Your task to perform on an android device: toggle notification dots Image 0: 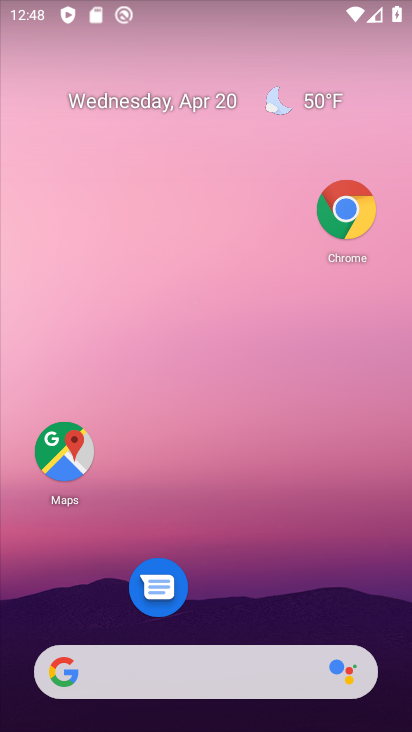
Step 0: drag from (235, 584) to (328, 0)
Your task to perform on an android device: toggle notification dots Image 1: 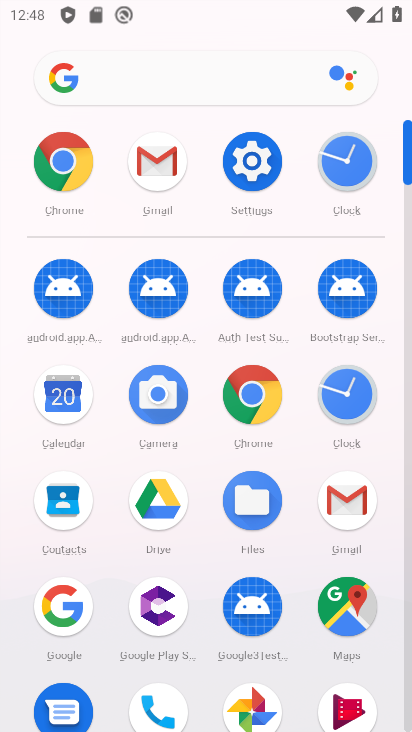
Step 1: click (258, 154)
Your task to perform on an android device: toggle notification dots Image 2: 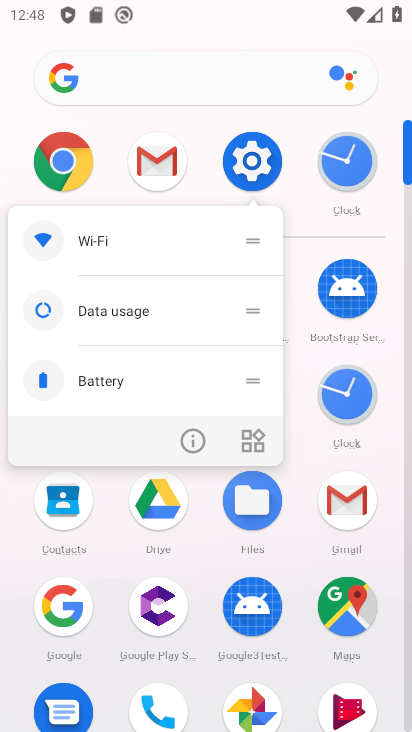
Step 2: click (255, 172)
Your task to perform on an android device: toggle notification dots Image 3: 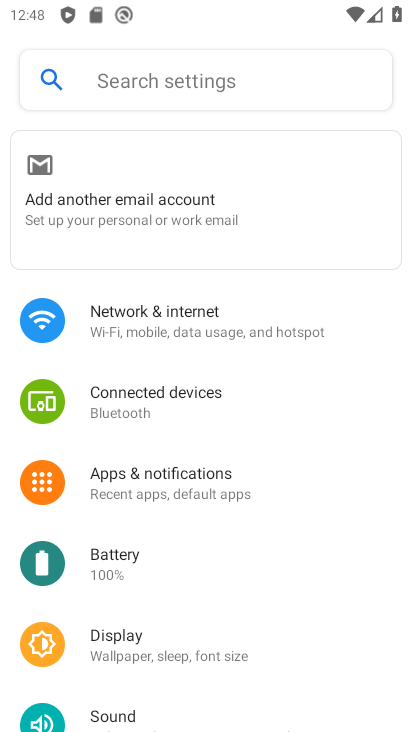
Step 3: click (179, 493)
Your task to perform on an android device: toggle notification dots Image 4: 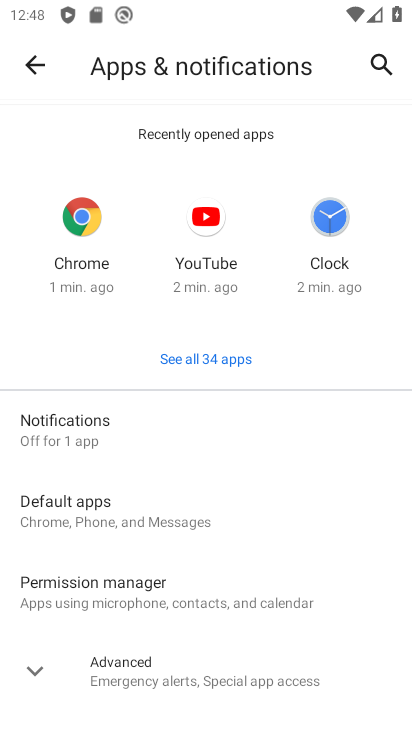
Step 4: click (85, 445)
Your task to perform on an android device: toggle notification dots Image 5: 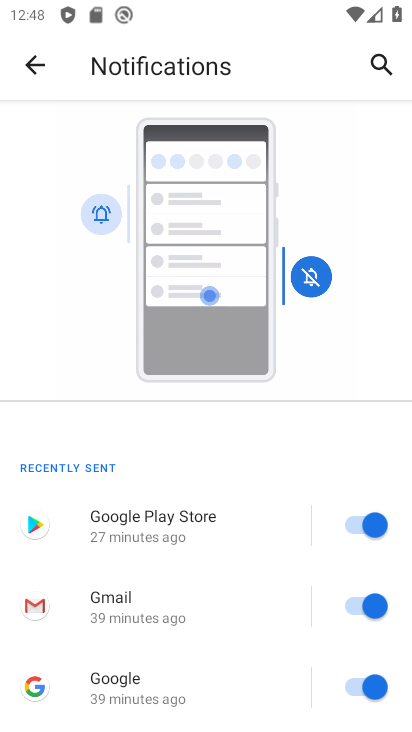
Step 5: drag from (197, 590) to (255, 142)
Your task to perform on an android device: toggle notification dots Image 6: 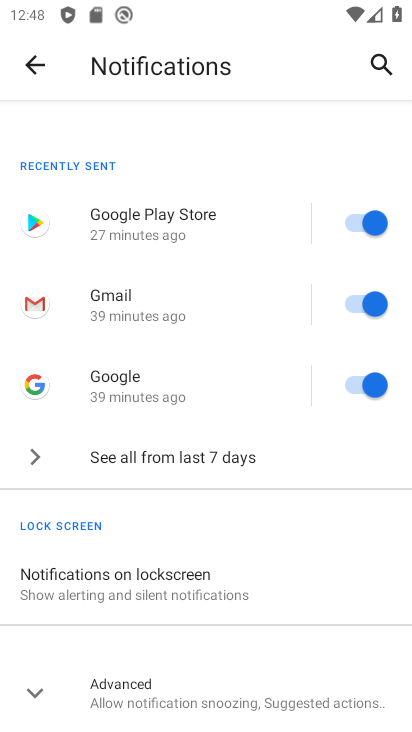
Step 6: drag from (170, 613) to (214, 348)
Your task to perform on an android device: toggle notification dots Image 7: 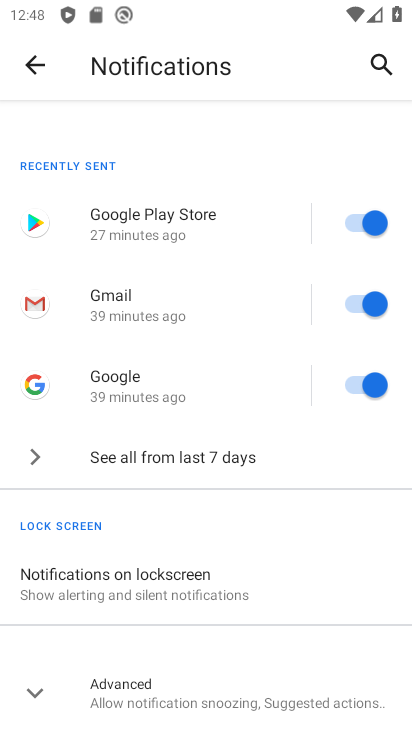
Step 7: click (122, 697)
Your task to perform on an android device: toggle notification dots Image 8: 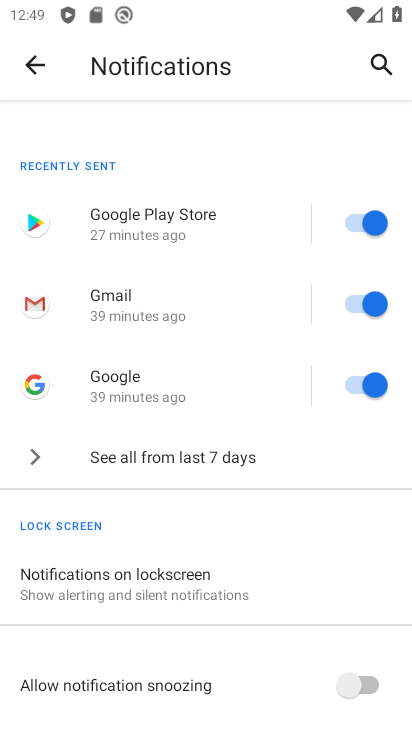
Step 8: drag from (136, 525) to (213, 124)
Your task to perform on an android device: toggle notification dots Image 9: 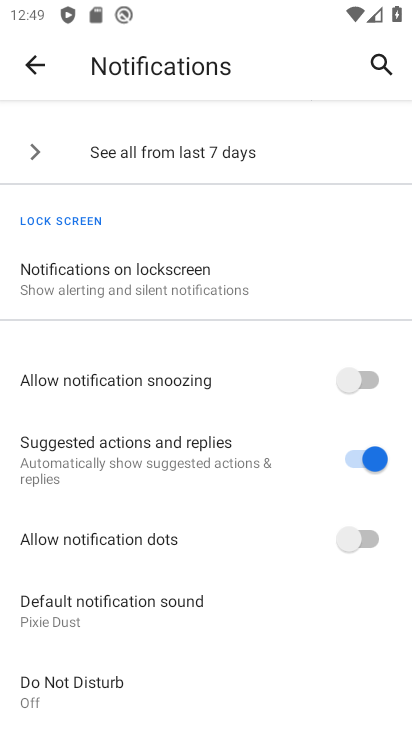
Step 9: click (368, 536)
Your task to perform on an android device: toggle notification dots Image 10: 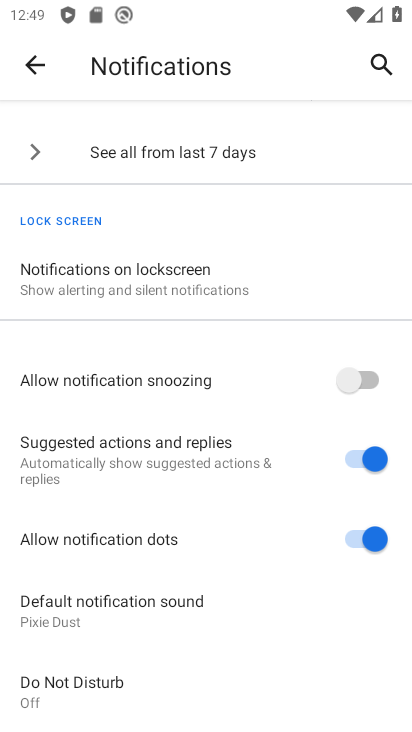
Step 10: task complete